Your task to perform on an android device: install app "Adobe Express: Graphic Design" Image 0: 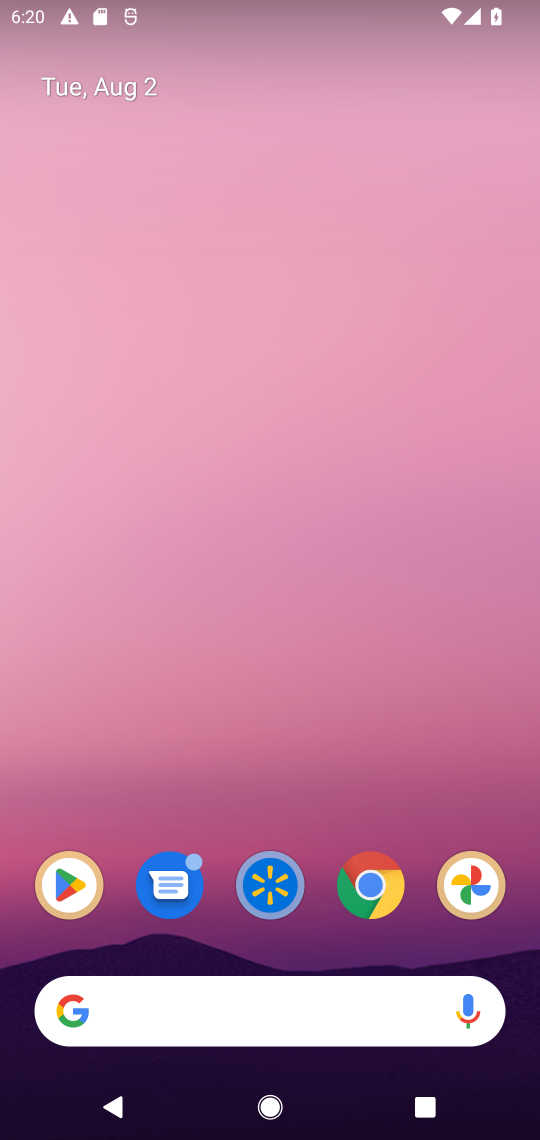
Step 0: drag from (422, 746) to (371, 168)
Your task to perform on an android device: install app "Adobe Express: Graphic Design" Image 1: 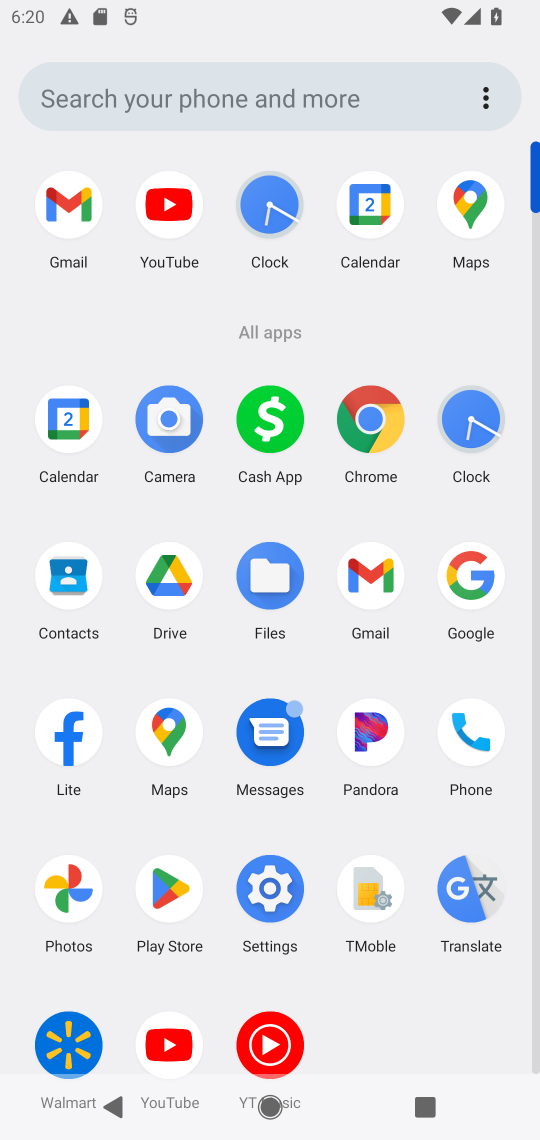
Step 1: click (166, 893)
Your task to perform on an android device: install app "Adobe Express: Graphic Design" Image 2: 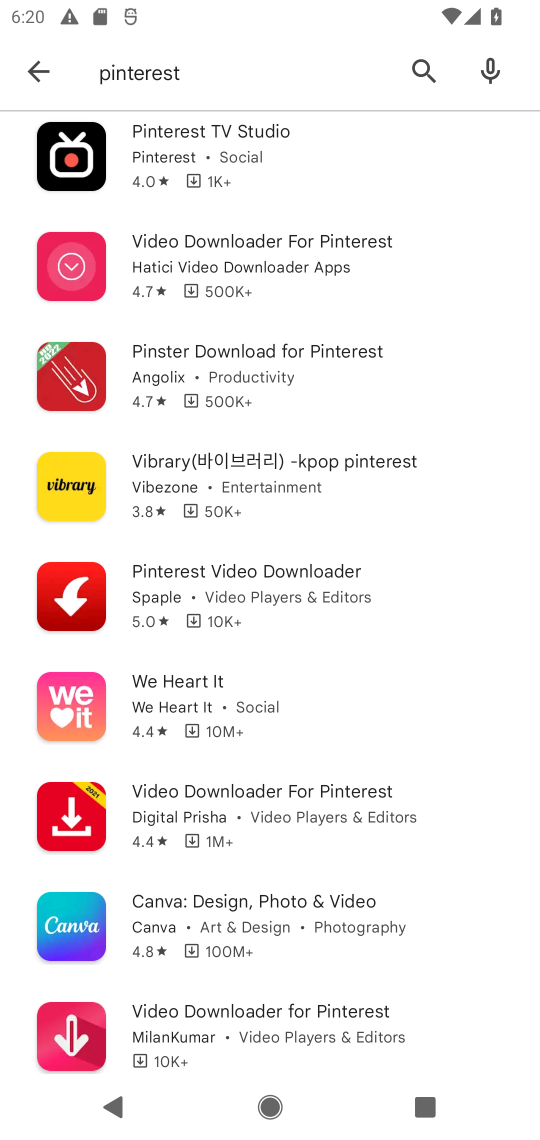
Step 2: click (411, 73)
Your task to perform on an android device: install app "Adobe Express: Graphic Design" Image 3: 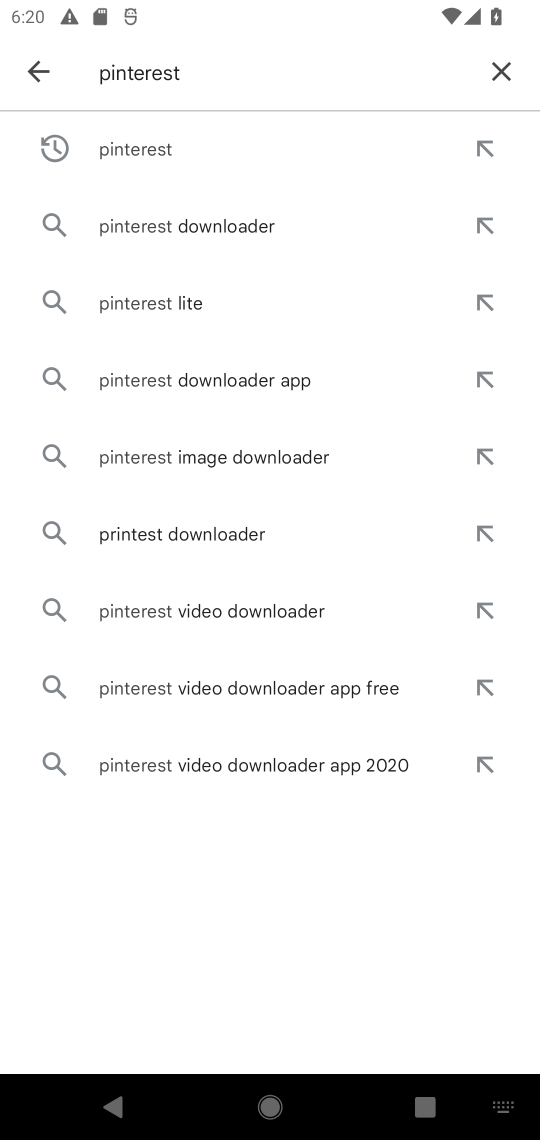
Step 3: click (492, 71)
Your task to perform on an android device: install app "Adobe Express: Graphic Design" Image 4: 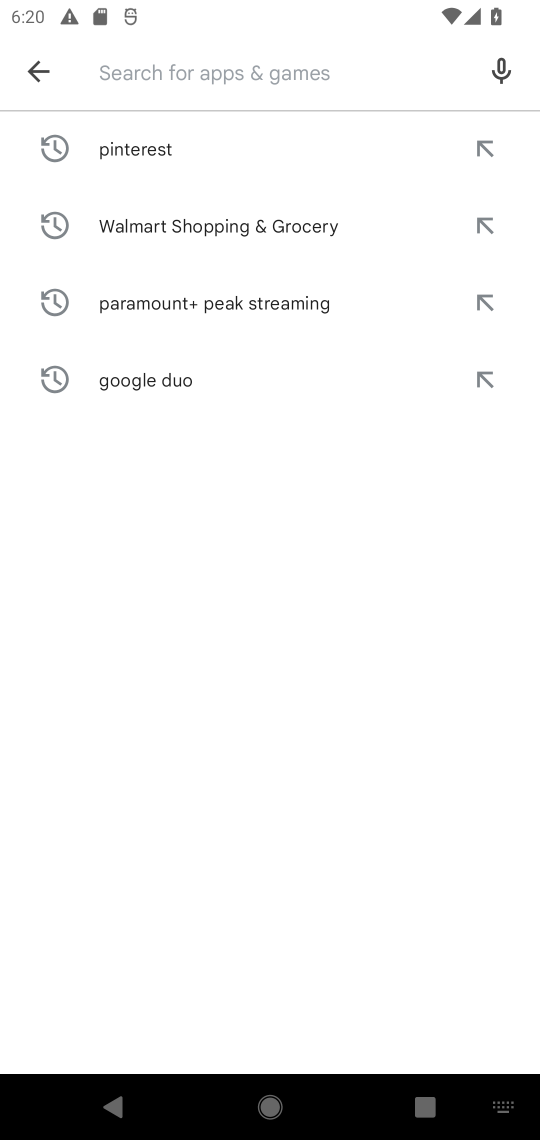
Step 4: click (390, 65)
Your task to perform on an android device: install app "Adobe Express: Graphic Design" Image 5: 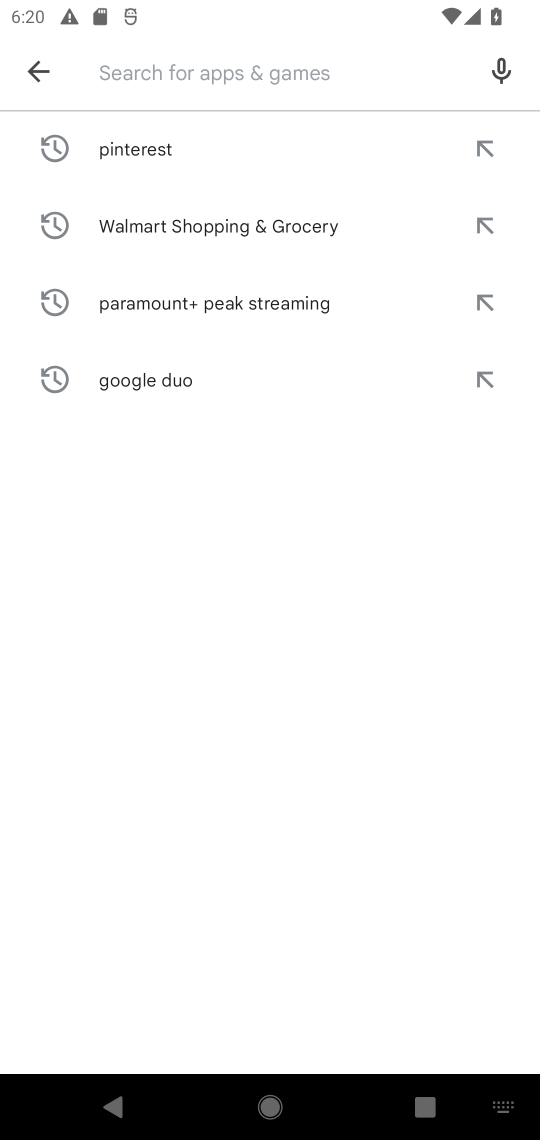
Step 5: type "Adobe Express: Graphic Design"
Your task to perform on an android device: install app "Adobe Express: Graphic Design" Image 6: 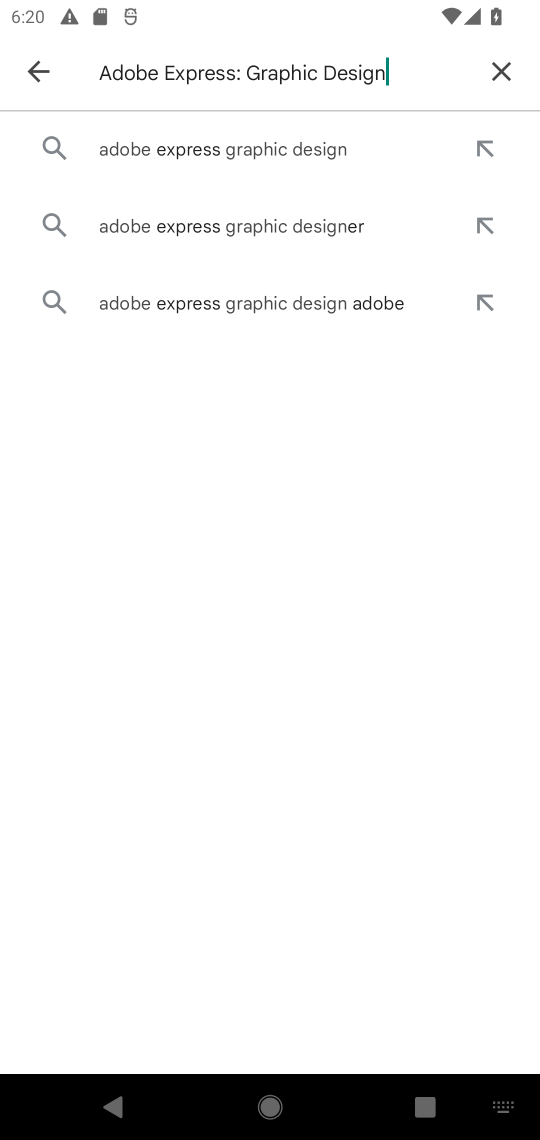
Step 6: click (294, 140)
Your task to perform on an android device: install app "Adobe Express: Graphic Design" Image 7: 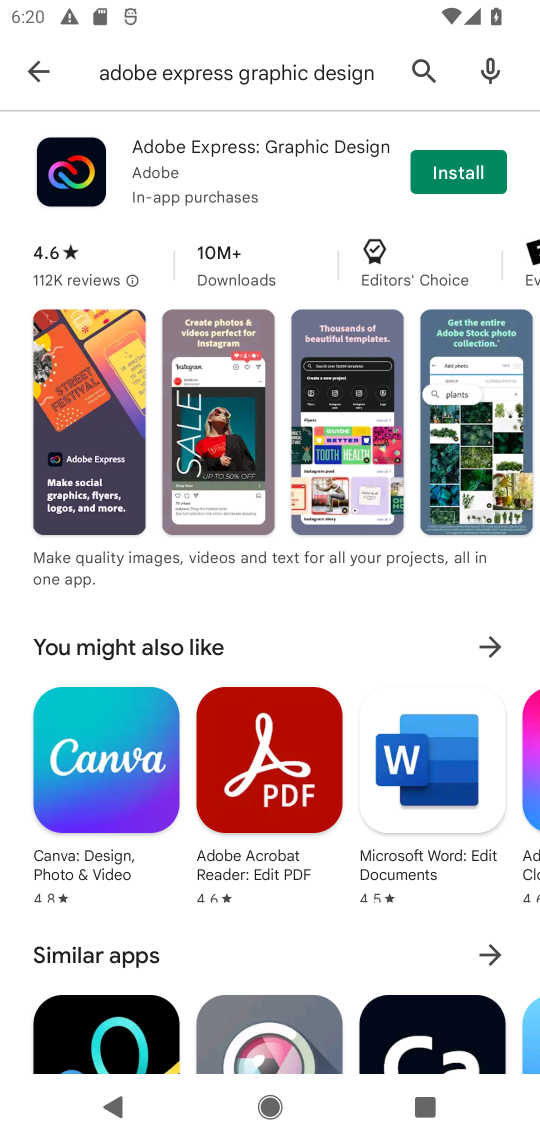
Step 7: click (460, 177)
Your task to perform on an android device: install app "Adobe Express: Graphic Design" Image 8: 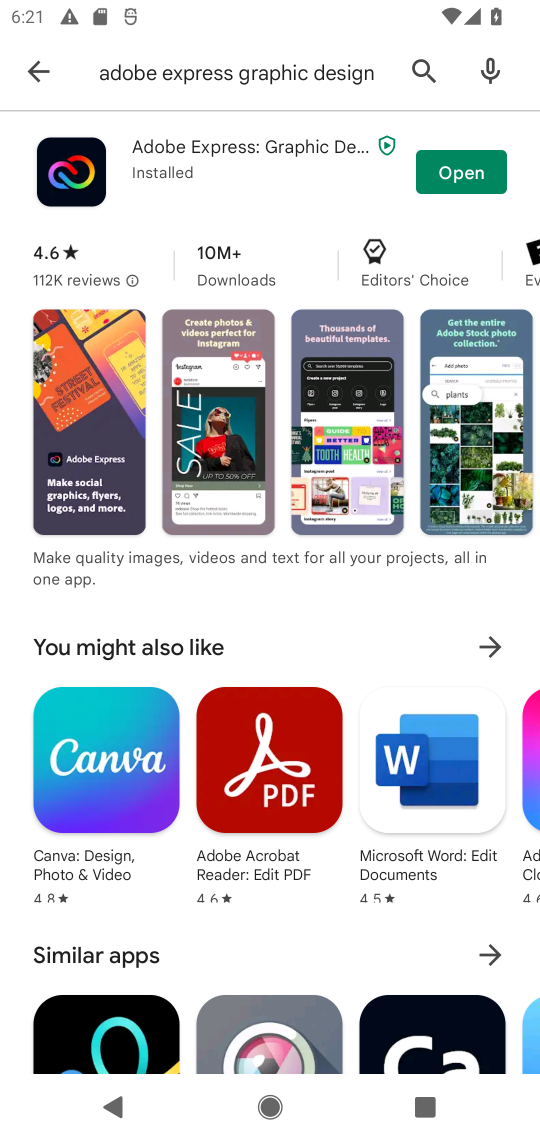
Step 8: task complete